Your task to perform on an android device: turn notification dots off Image 0: 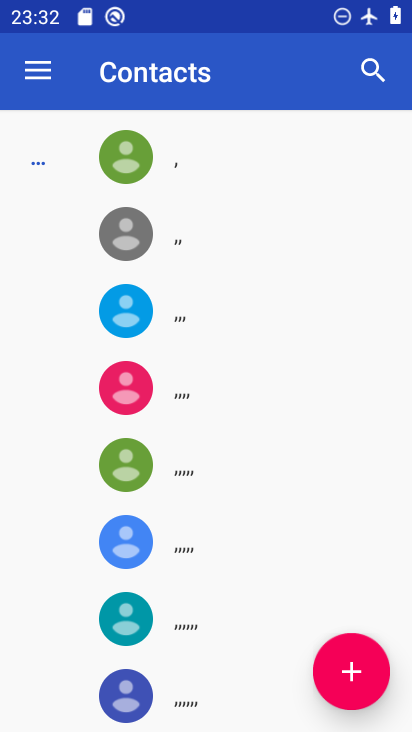
Step 0: press home button
Your task to perform on an android device: turn notification dots off Image 1: 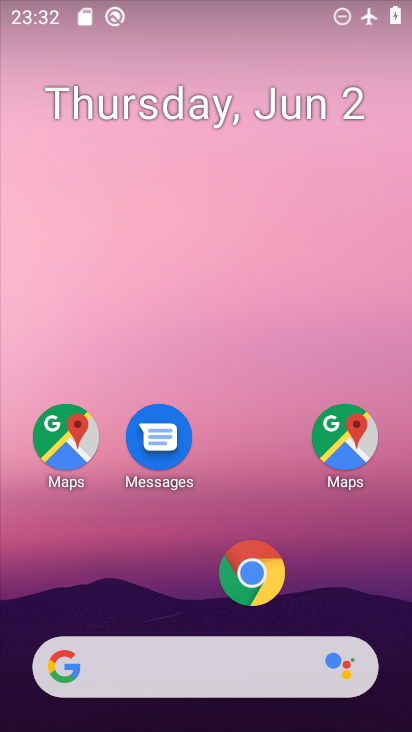
Step 1: drag from (224, 409) to (220, 25)
Your task to perform on an android device: turn notification dots off Image 2: 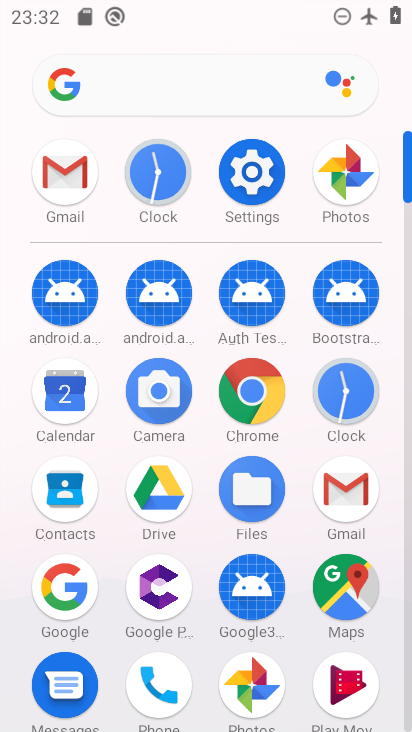
Step 2: click (246, 168)
Your task to perform on an android device: turn notification dots off Image 3: 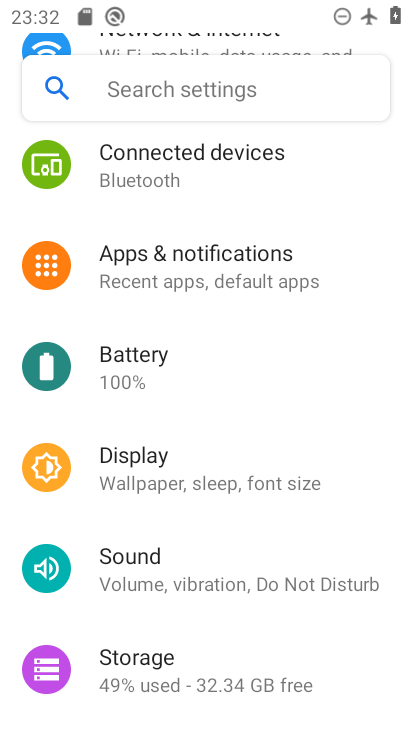
Step 3: click (233, 225)
Your task to perform on an android device: turn notification dots off Image 4: 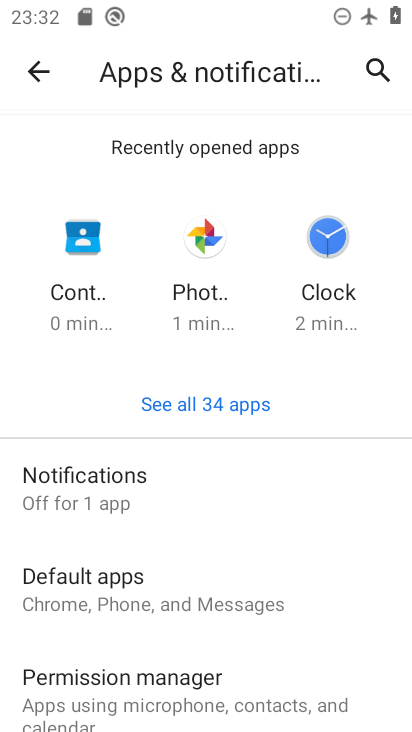
Step 4: click (203, 507)
Your task to perform on an android device: turn notification dots off Image 5: 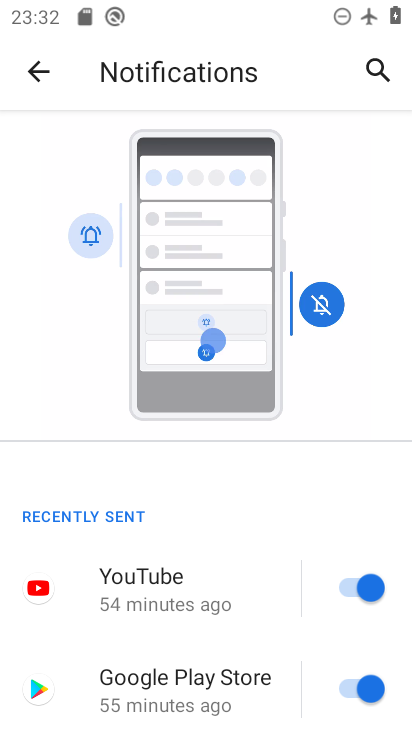
Step 5: drag from (175, 667) to (147, 307)
Your task to perform on an android device: turn notification dots off Image 6: 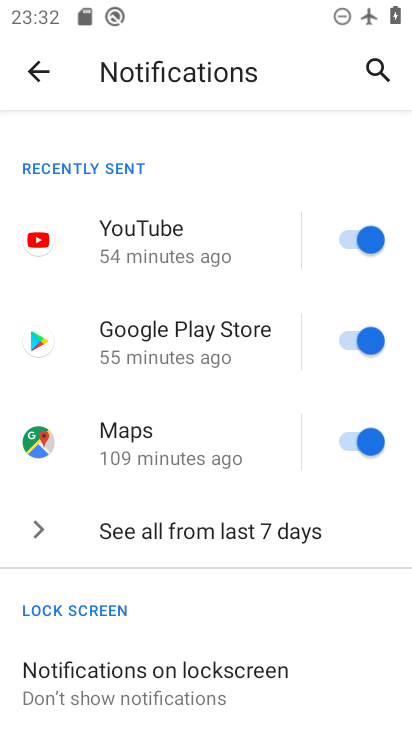
Step 6: click (179, 646)
Your task to perform on an android device: turn notification dots off Image 7: 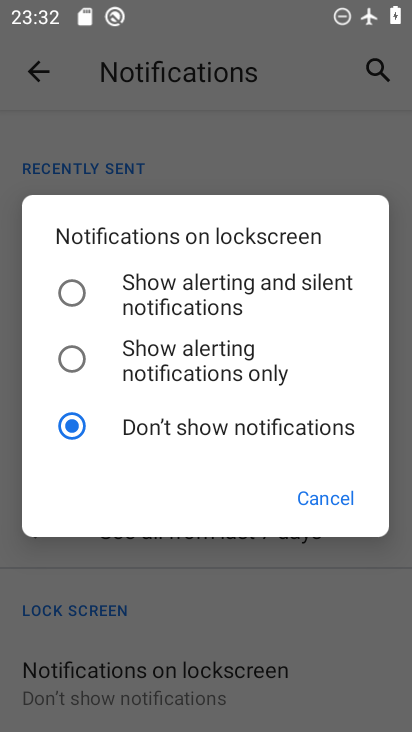
Step 7: click (326, 511)
Your task to perform on an android device: turn notification dots off Image 8: 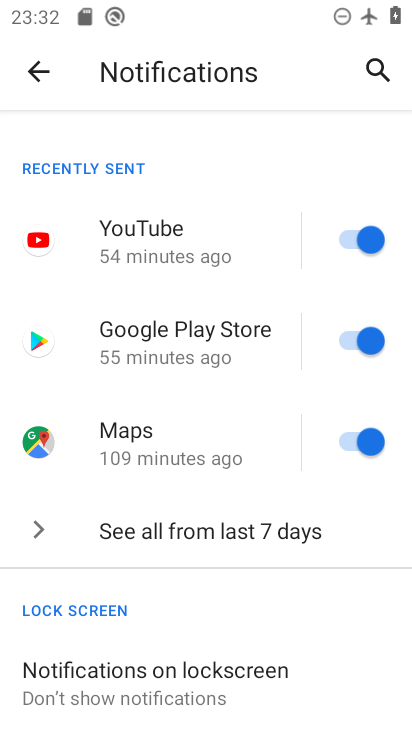
Step 8: drag from (203, 601) to (252, 164)
Your task to perform on an android device: turn notification dots off Image 9: 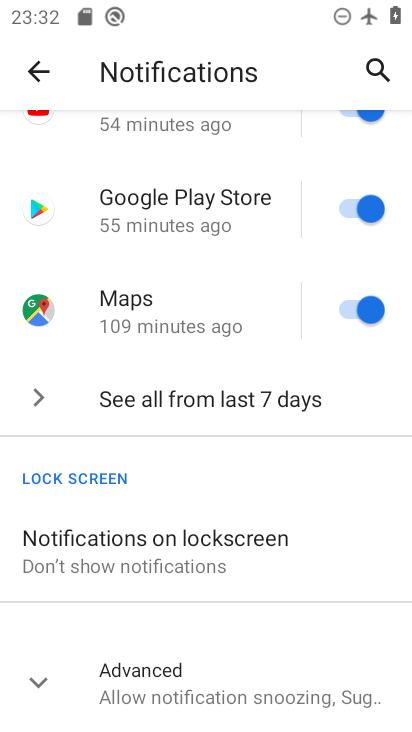
Step 9: click (190, 660)
Your task to perform on an android device: turn notification dots off Image 10: 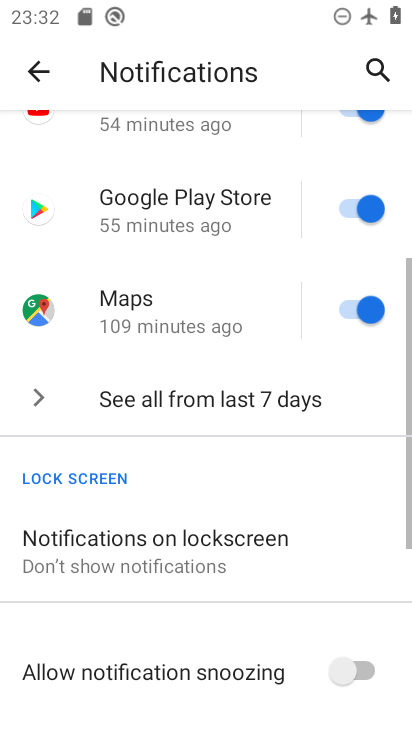
Step 10: task complete